Your task to perform on an android device: set the stopwatch Image 0: 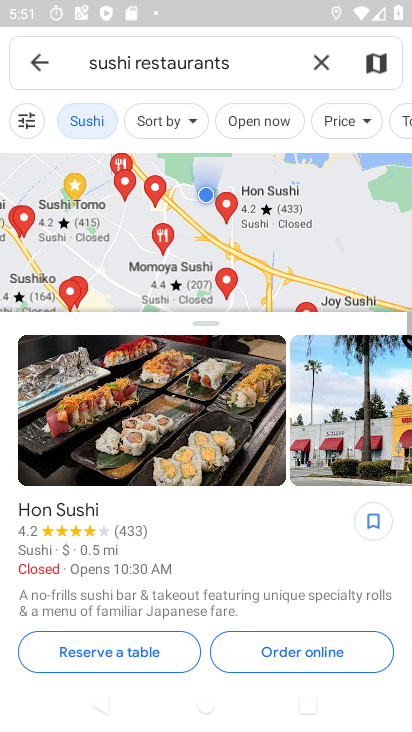
Step 0: press home button
Your task to perform on an android device: set the stopwatch Image 1: 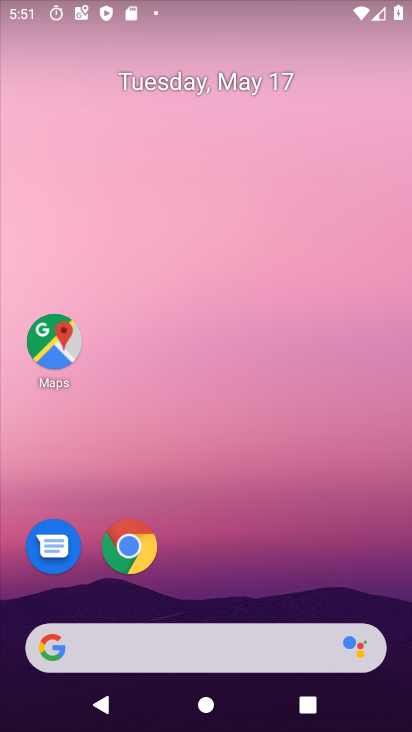
Step 1: drag from (261, 603) to (86, 48)
Your task to perform on an android device: set the stopwatch Image 2: 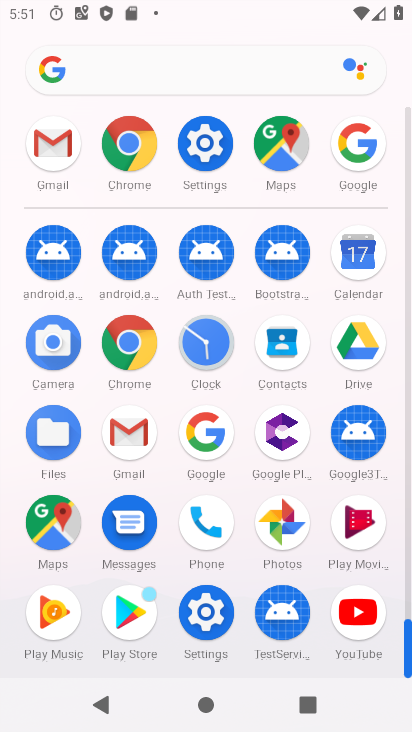
Step 2: click (212, 362)
Your task to perform on an android device: set the stopwatch Image 3: 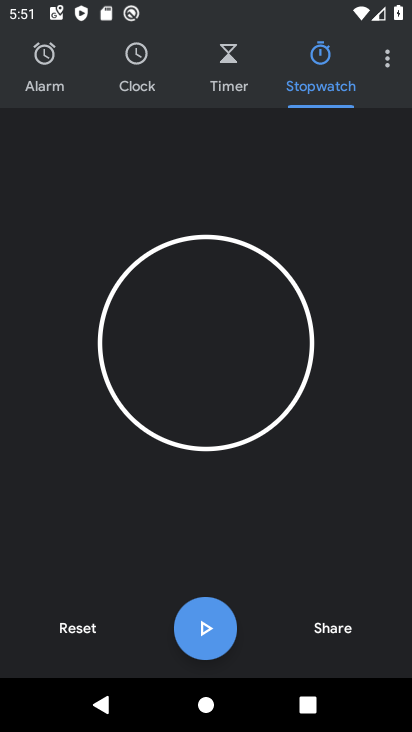
Step 3: click (203, 634)
Your task to perform on an android device: set the stopwatch Image 4: 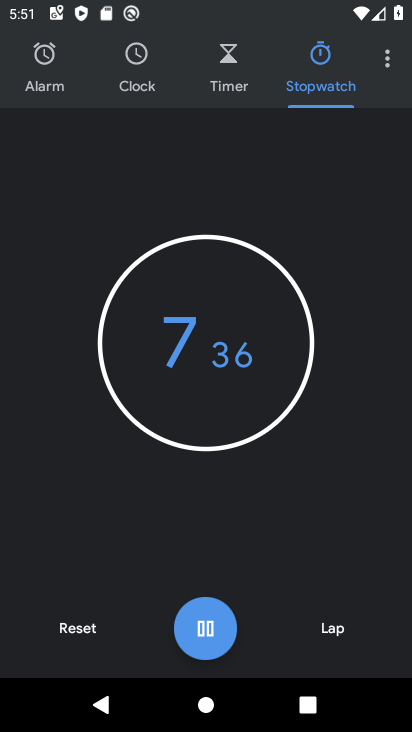
Step 4: click (196, 626)
Your task to perform on an android device: set the stopwatch Image 5: 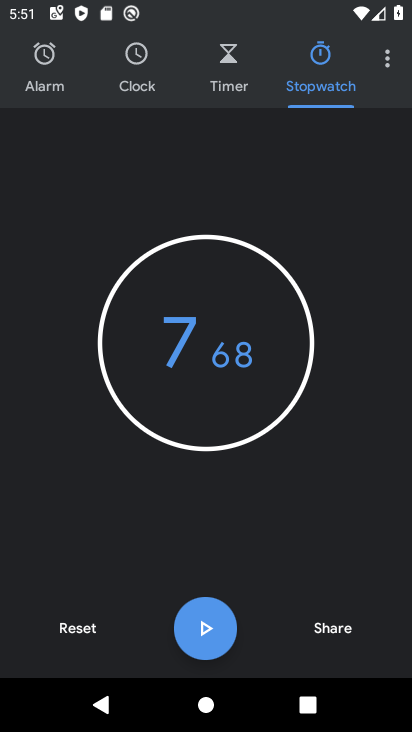
Step 5: task complete